Your task to perform on an android device: add a contact Image 0: 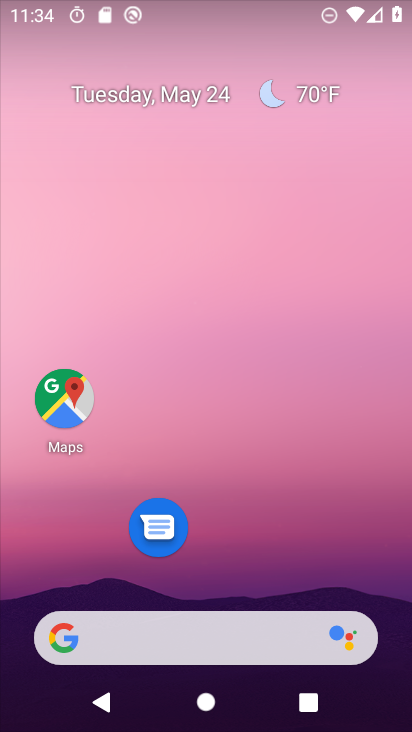
Step 0: drag from (248, 555) to (278, 73)
Your task to perform on an android device: add a contact Image 1: 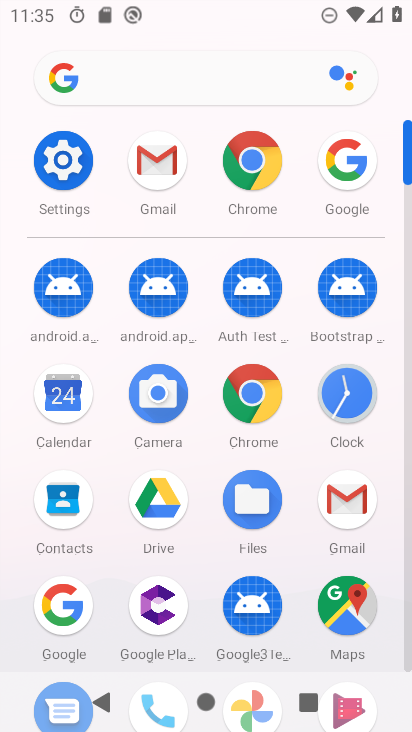
Step 1: click (59, 510)
Your task to perform on an android device: add a contact Image 2: 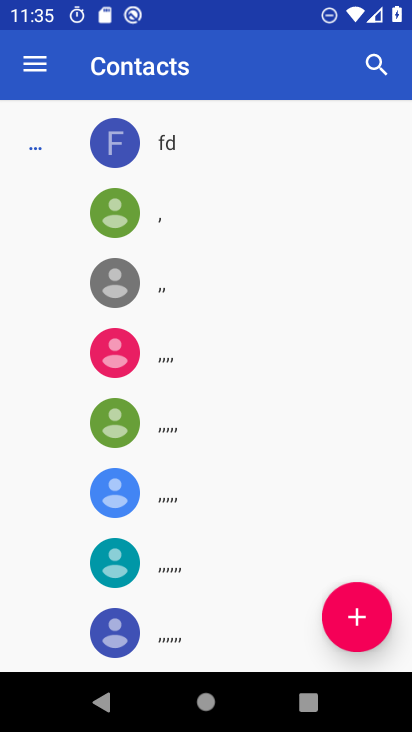
Step 2: click (349, 617)
Your task to perform on an android device: add a contact Image 3: 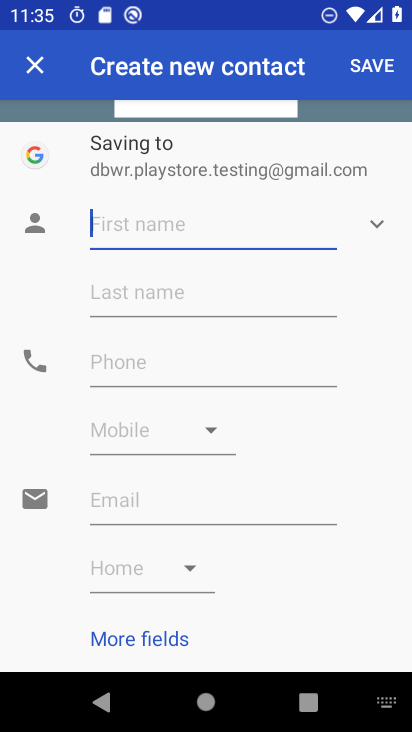
Step 3: type "yhh"
Your task to perform on an android device: add a contact Image 4: 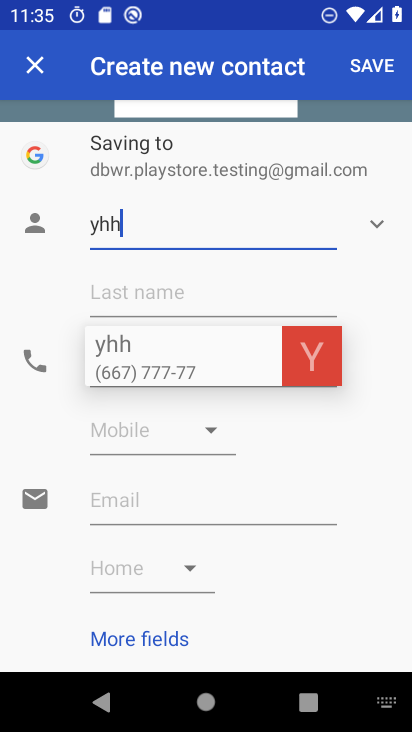
Step 4: click (380, 66)
Your task to perform on an android device: add a contact Image 5: 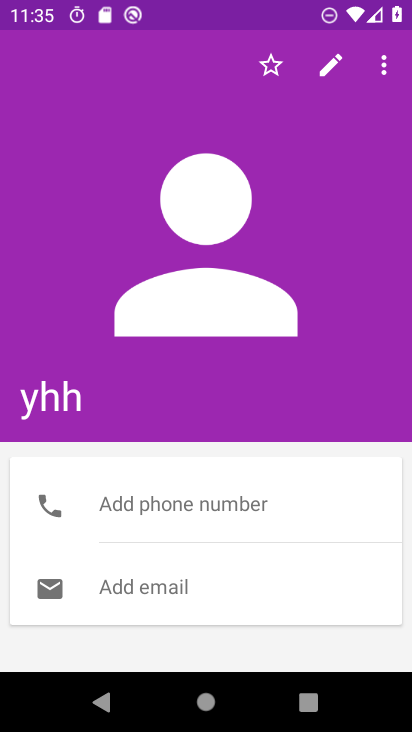
Step 5: task complete